Your task to perform on an android device: add a contact in the contacts app Image 0: 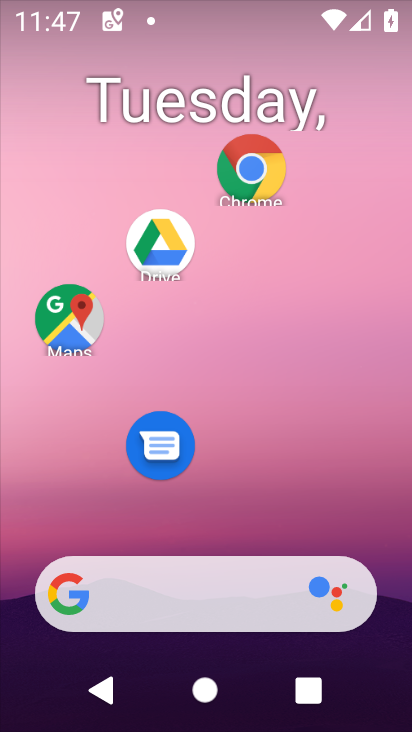
Step 0: drag from (230, 442) to (239, 65)
Your task to perform on an android device: add a contact in the contacts app Image 1: 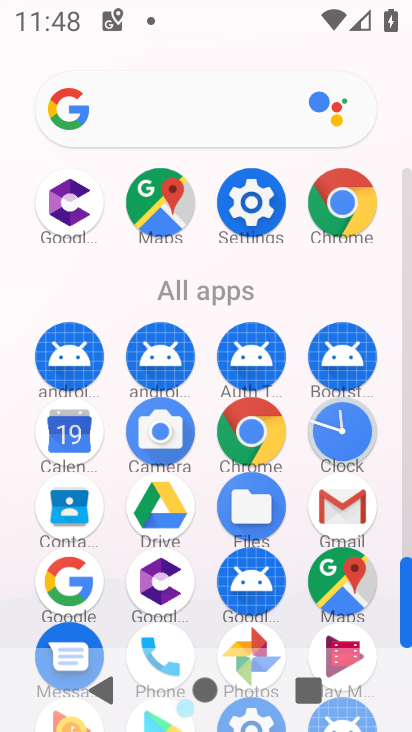
Step 1: click (65, 512)
Your task to perform on an android device: add a contact in the contacts app Image 2: 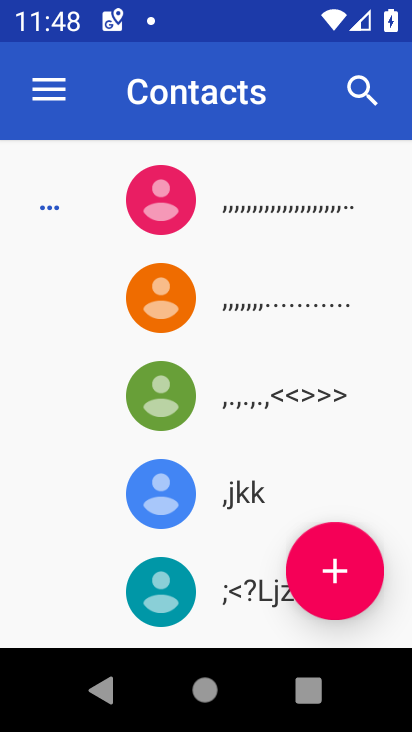
Step 2: click (332, 582)
Your task to perform on an android device: add a contact in the contacts app Image 3: 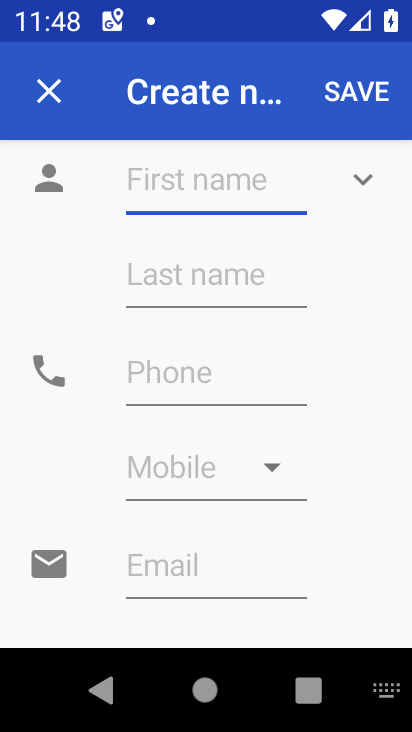
Step 3: type "fdfdg"
Your task to perform on an android device: add a contact in the contacts app Image 4: 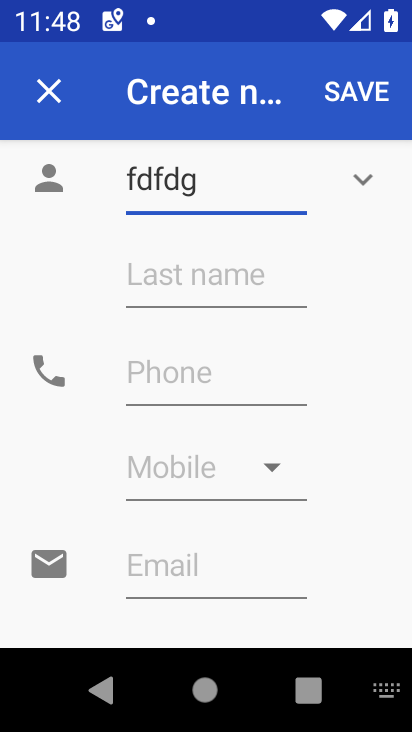
Step 4: click (141, 375)
Your task to perform on an android device: add a contact in the contacts app Image 5: 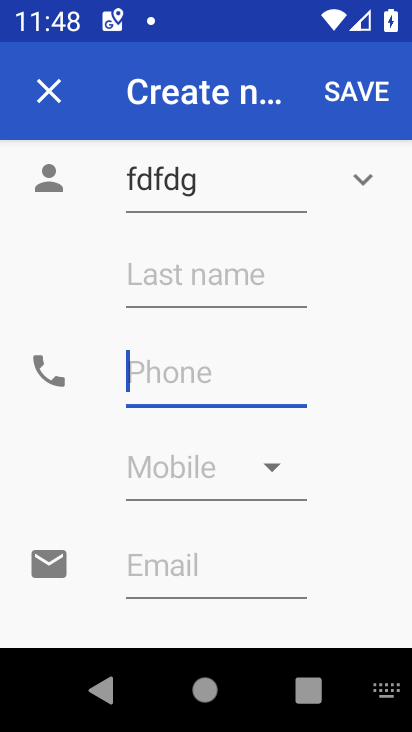
Step 5: type "467674868465"
Your task to perform on an android device: add a contact in the contacts app Image 6: 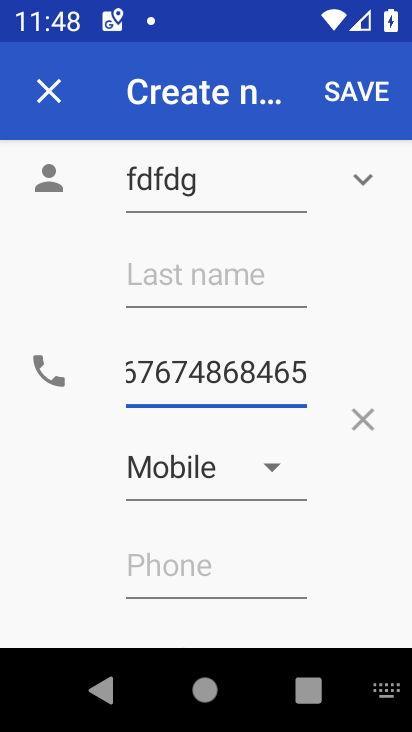
Step 6: click (377, 85)
Your task to perform on an android device: add a contact in the contacts app Image 7: 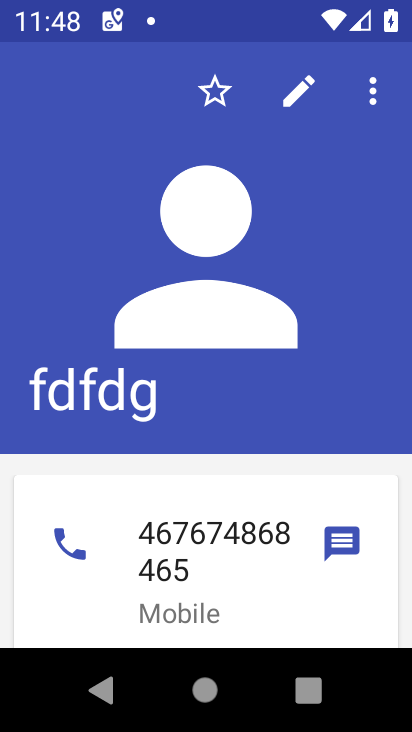
Step 7: task complete